Your task to perform on an android device: set an alarm Image 0: 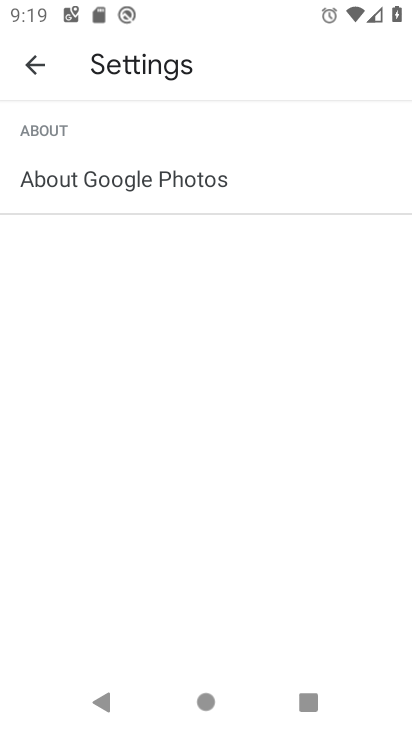
Step 0: press home button
Your task to perform on an android device: set an alarm Image 1: 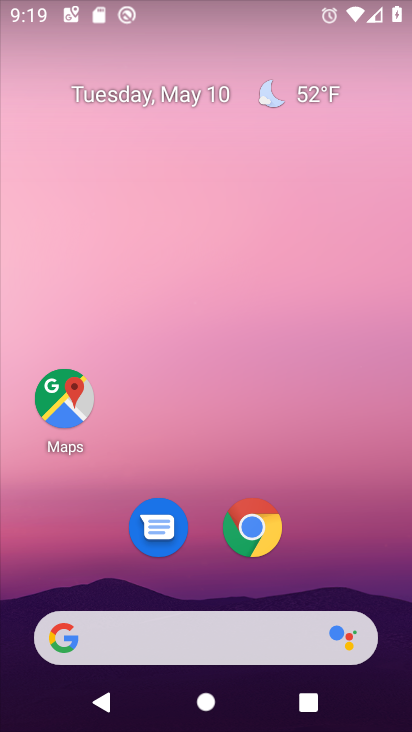
Step 1: drag from (324, 541) to (199, 126)
Your task to perform on an android device: set an alarm Image 2: 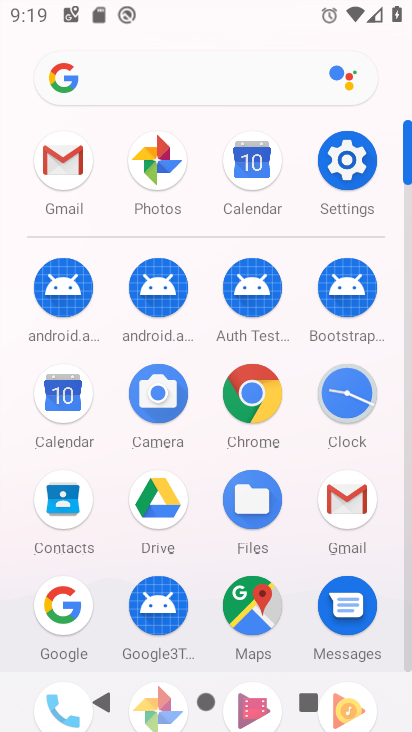
Step 2: click (345, 403)
Your task to perform on an android device: set an alarm Image 3: 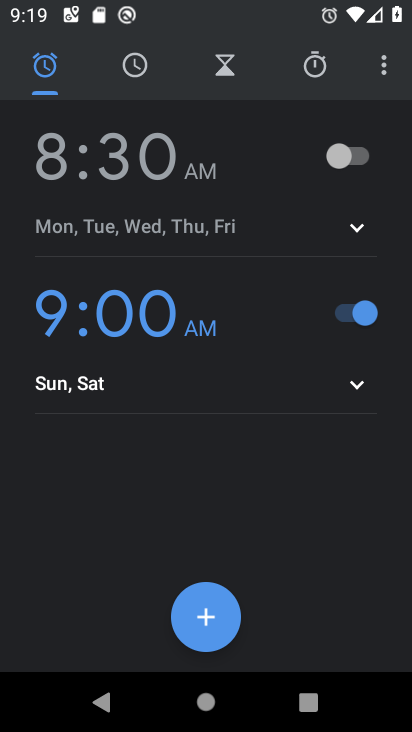
Step 3: click (215, 622)
Your task to perform on an android device: set an alarm Image 4: 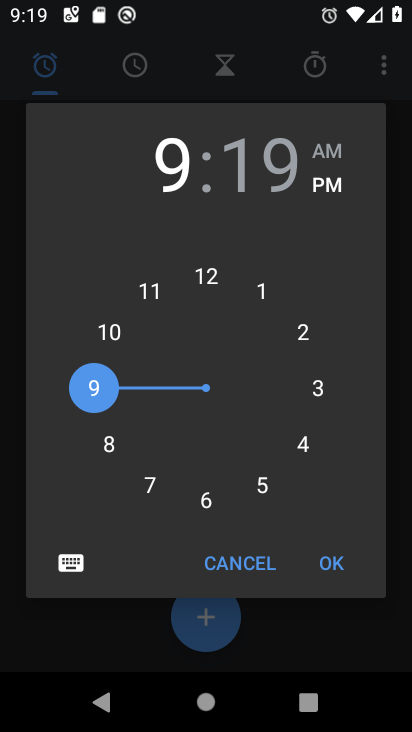
Step 4: click (325, 568)
Your task to perform on an android device: set an alarm Image 5: 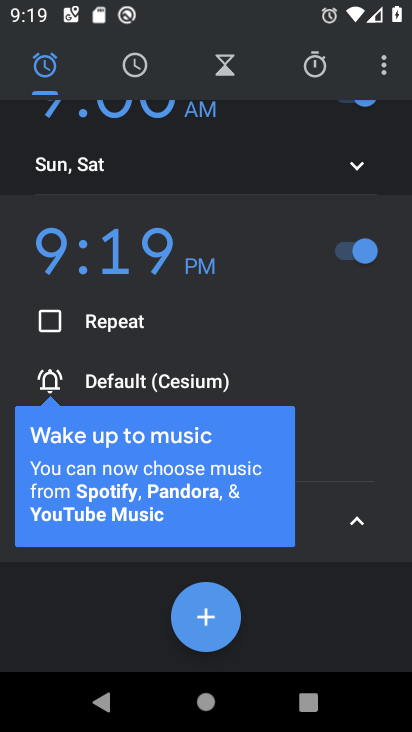
Step 5: click (357, 531)
Your task to perform on an android device: set an alarm Image 6: 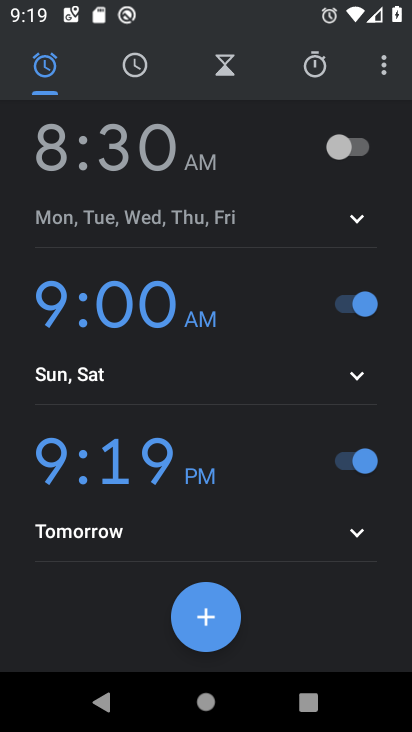
Step 6: task complete